Your task to perform on an android device: set the stopwatch Image 0: 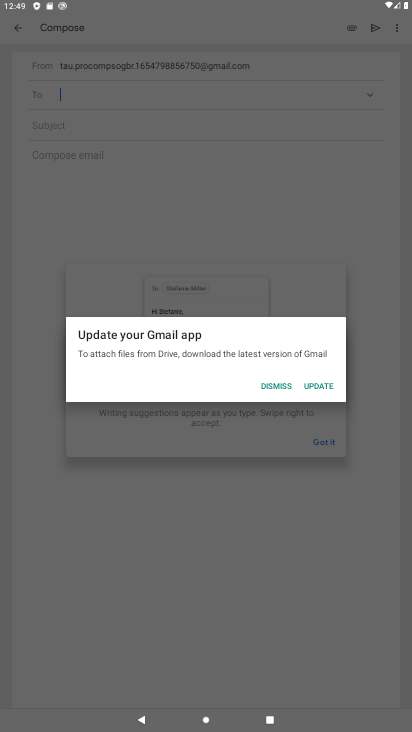
Step 0: press home button
Your task to perform on an android device: set the stopwatch Image 1: 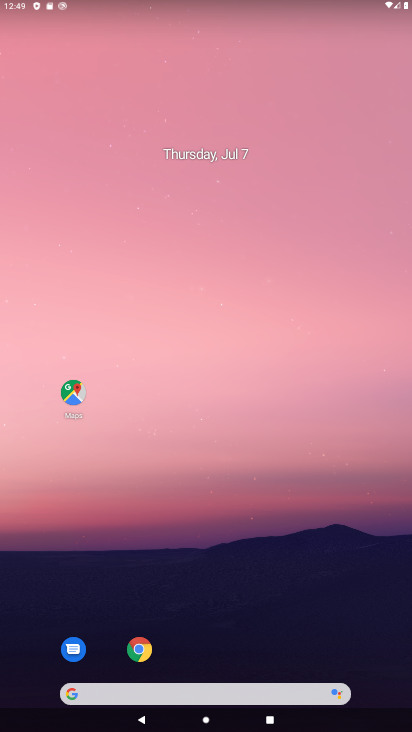
Step 1: drag from (208, 668) to (219, 138)
Your task to perform on an android device: set the stopwatch Image 2: 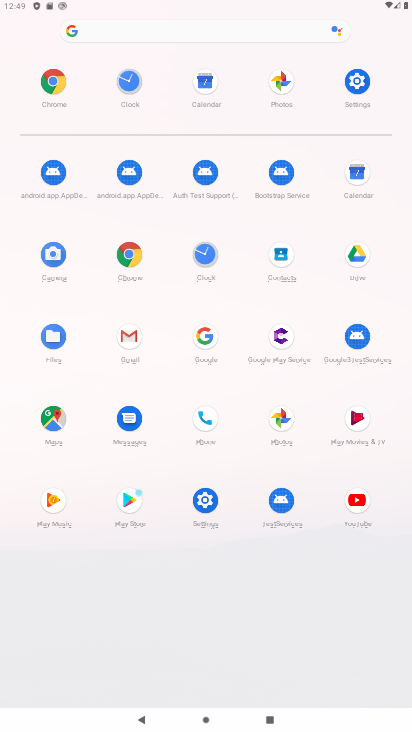
Step 2: click (204, 246)
Your task to perform on an android device: set the stopwatch Image 3: 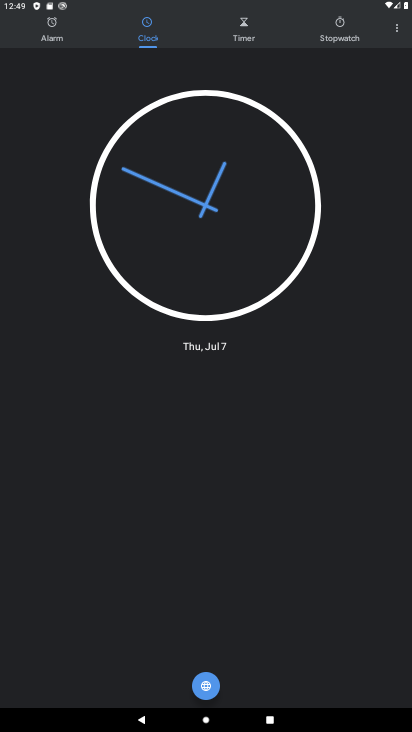
Step 3: click (340, 24)
Your task to perform on an android device: set the stopwatch Image 4: 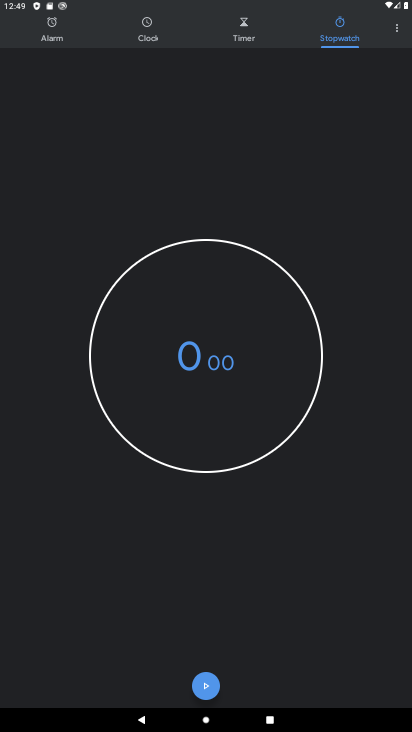
Step 4: click (206, 688)
Your task to perform on an android device: set the stopwatch Image 5: 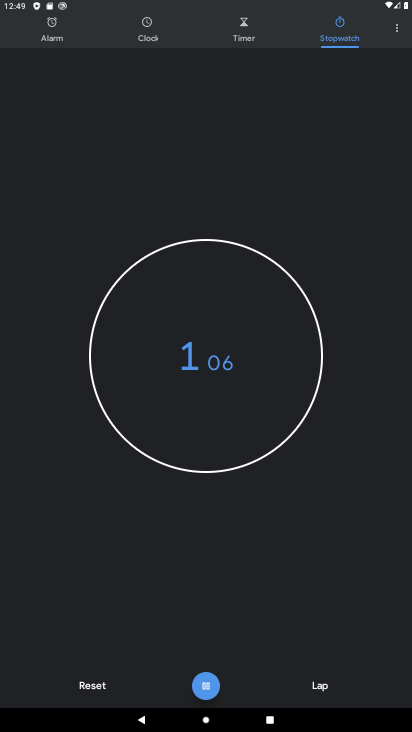
Step 5: click (206, 688)
Your task to perform on an android device: set the stopwatch Image 6: 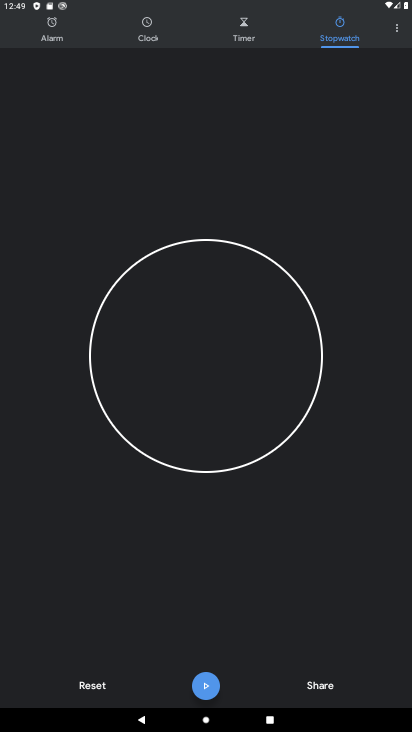
Step 6: task complete